Your task to perform on an android device: uninstall "Google Keep" Image 0: 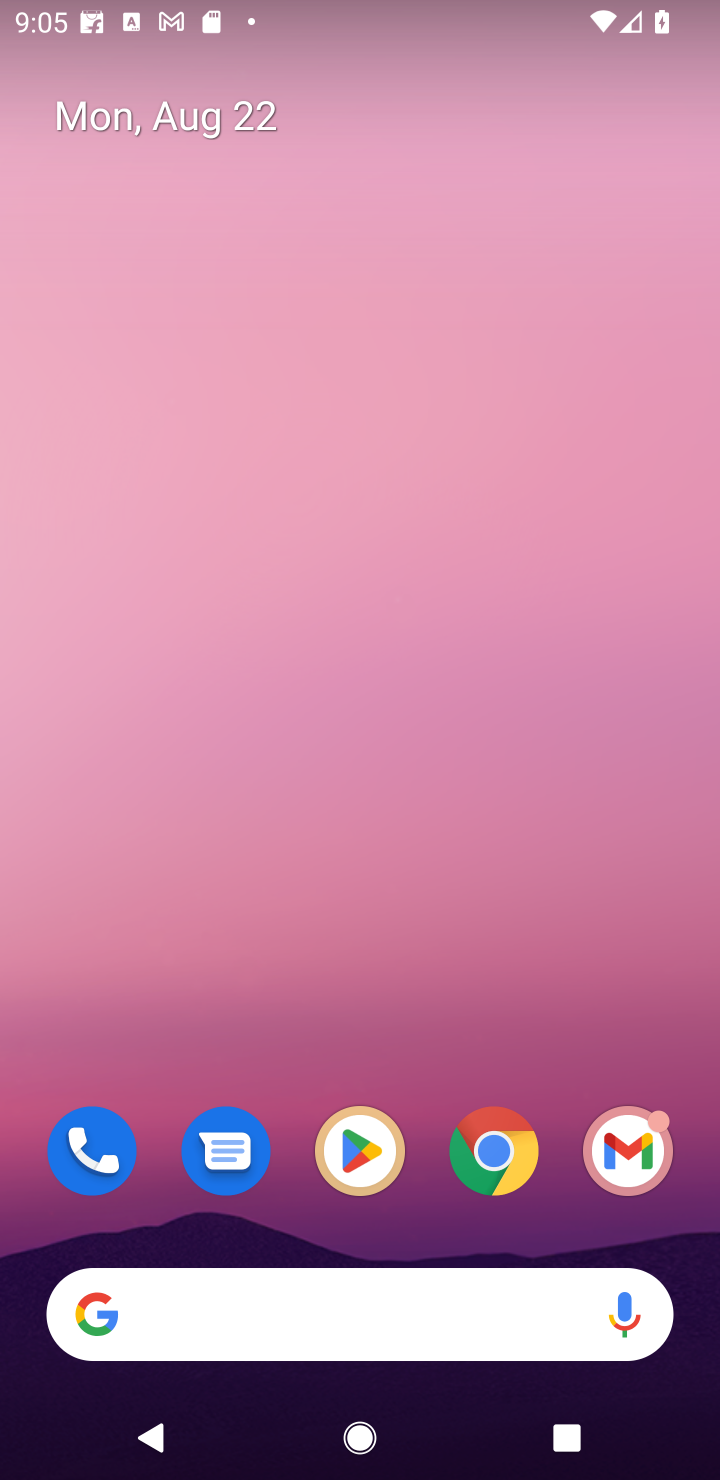
Step 0: click (358, 1148)
Your task to perform on an android device: uninstall "Google Keep" Image 1: 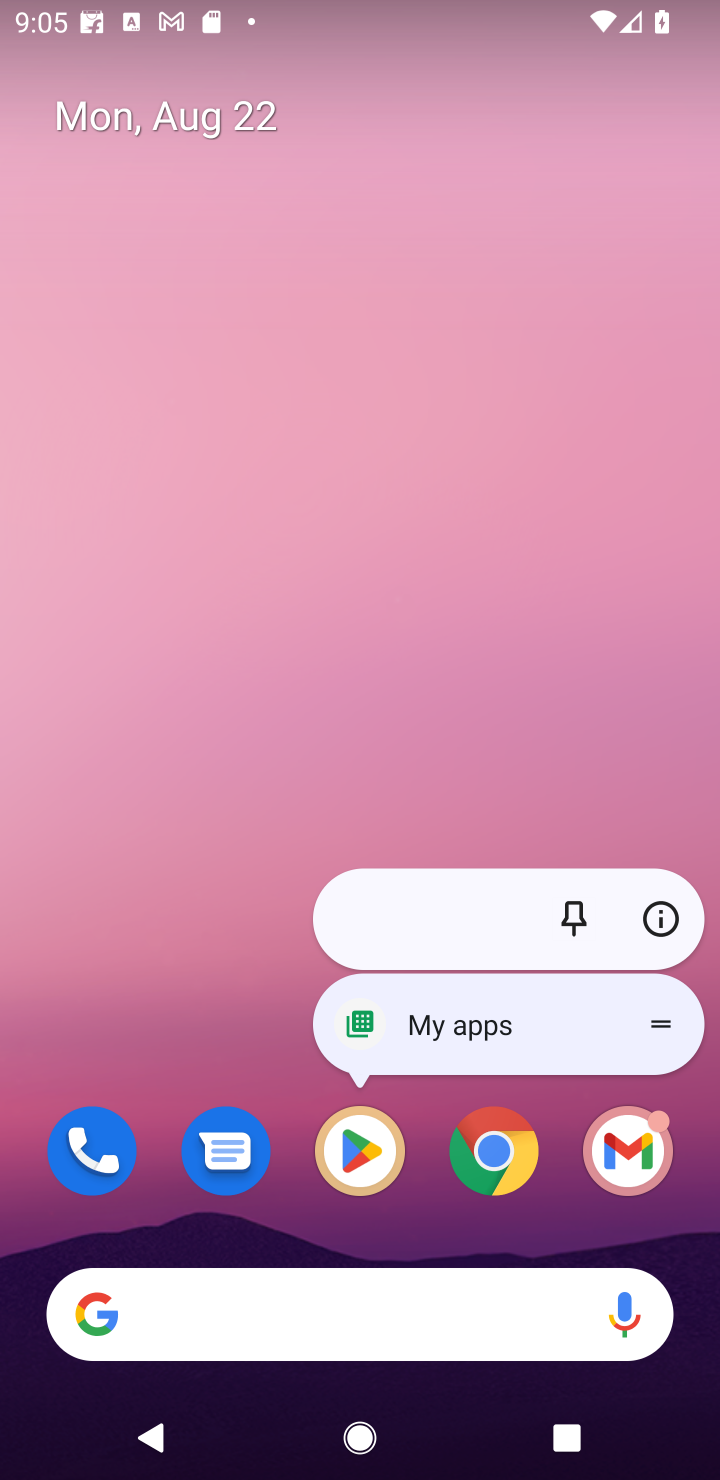
Step 1: click (358, 1148)
Your task to perform on an android device: uninstall "Google Keep" Image 2: 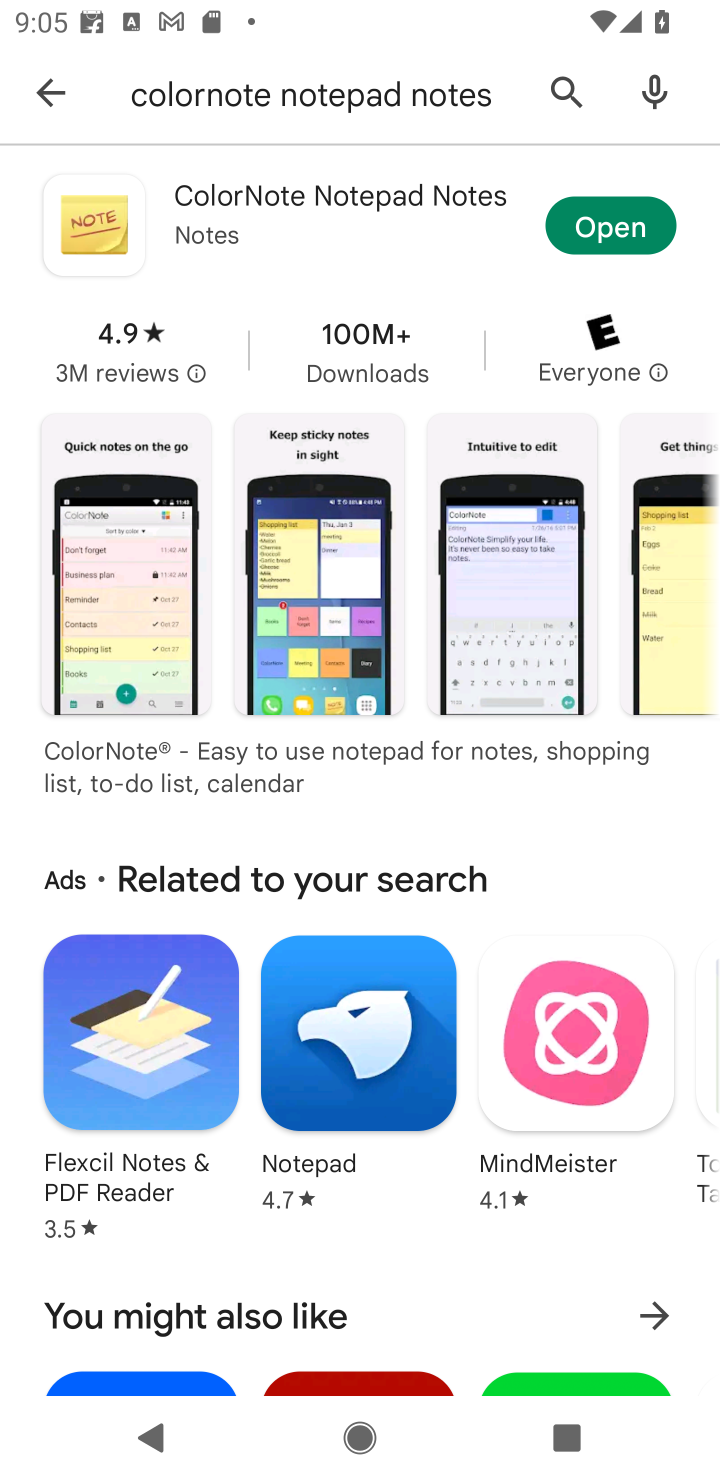
Step 2: click (566, 96)
Your task to perform on an android device: uninstall "Google Keep" Image 3: 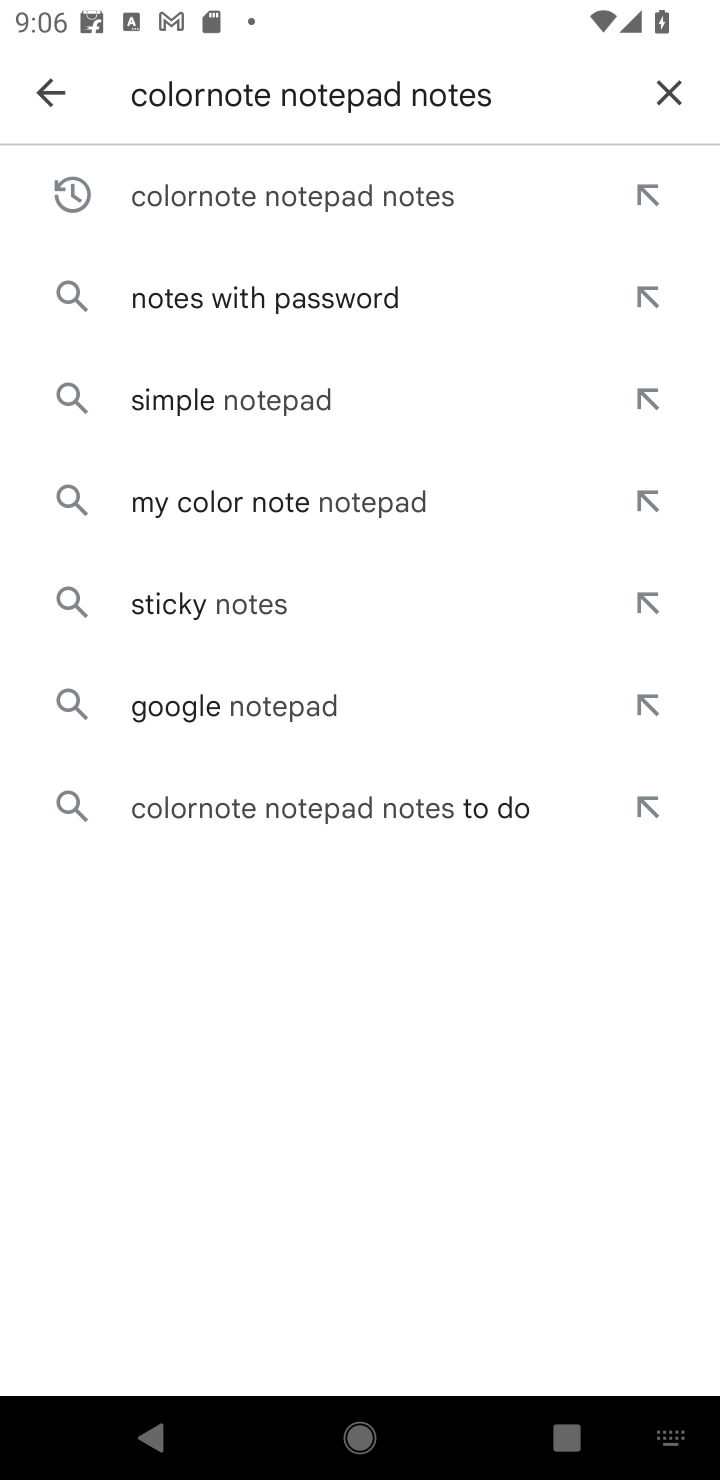
Step 3: click (663, 80)
Your task to perform on an android device: uninstall "Google Keep" Image 4: 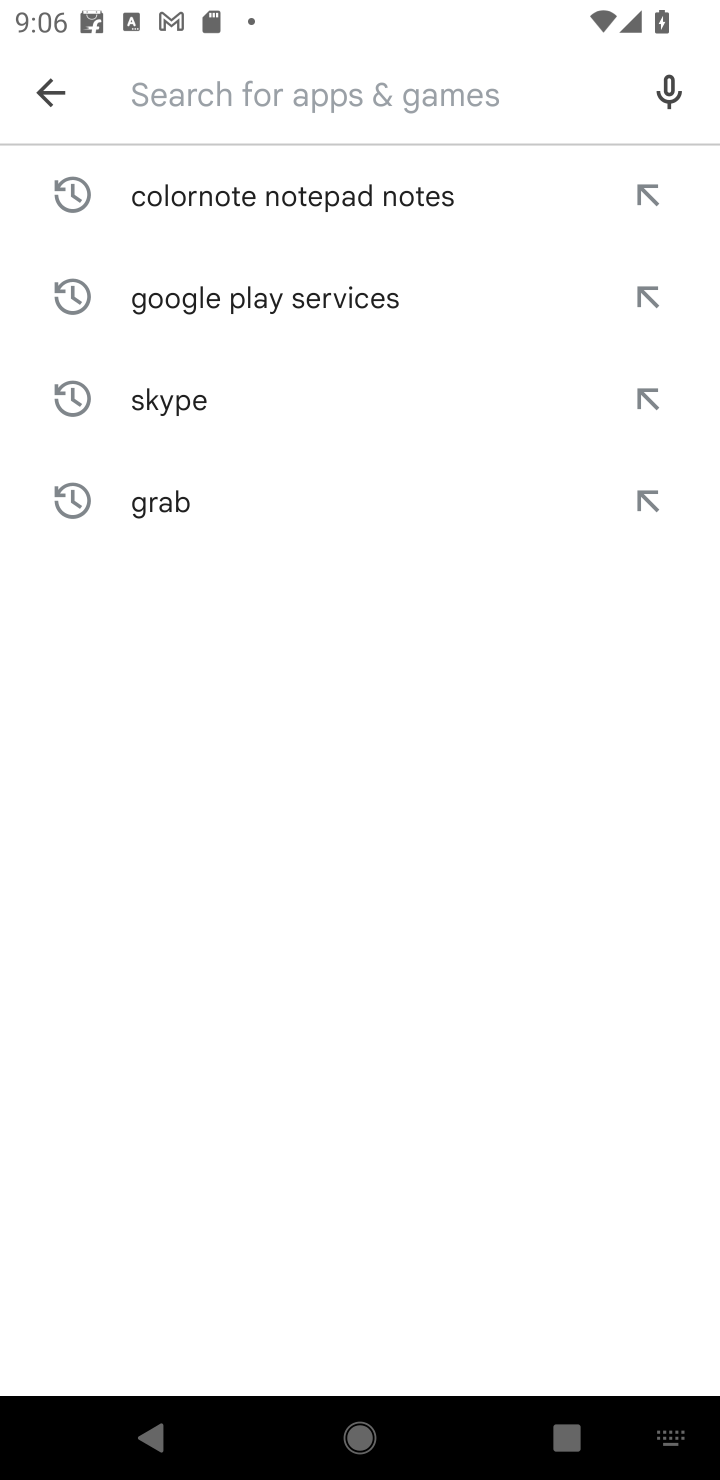
Step 4: type "Google Keep"
Your task to perform on an android device: uninstall "Google Keep" Image 5: 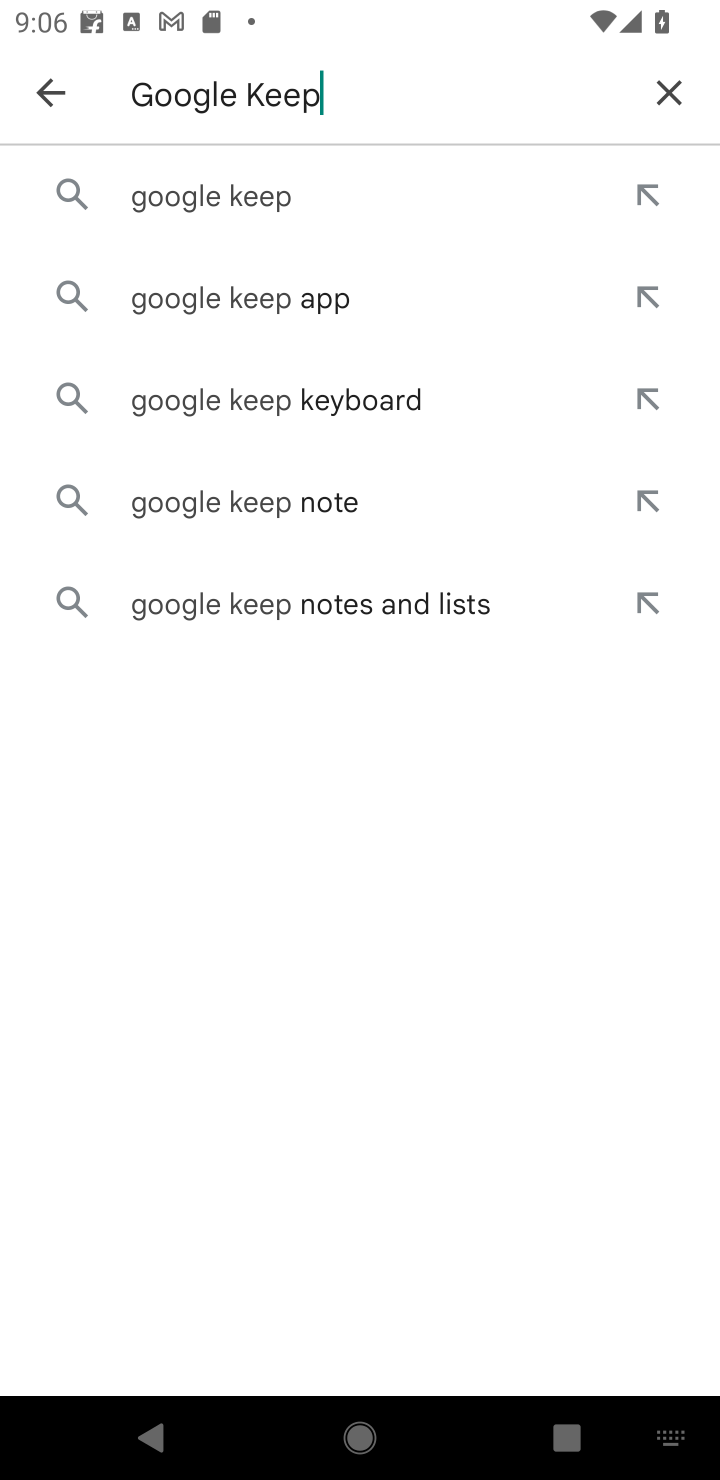
Step 5: click (249, 198)
Your task to perform on an android device: uninstall "Google Keep" Image 6: 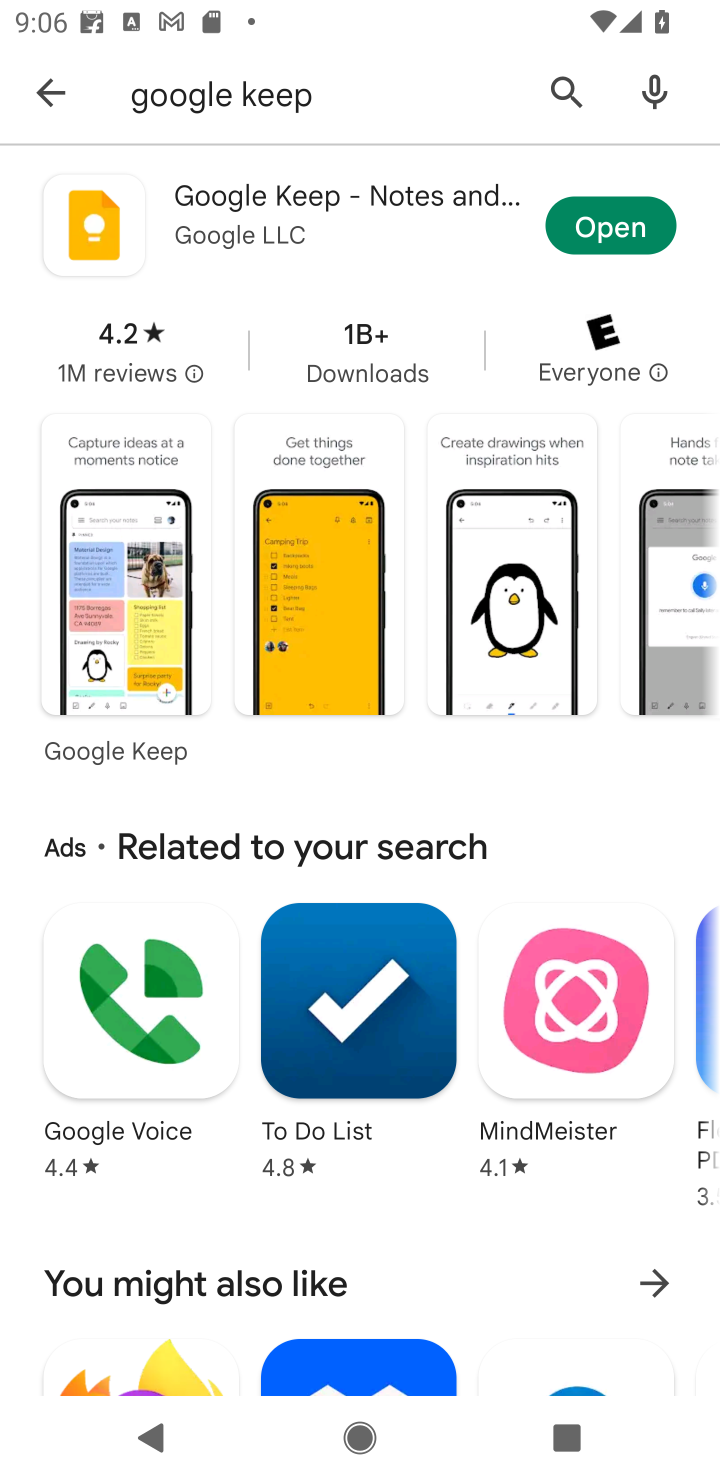
Step 6: click (182, 211)
Your task to perform on an android device: uninstall "Google Keep" Image 7: 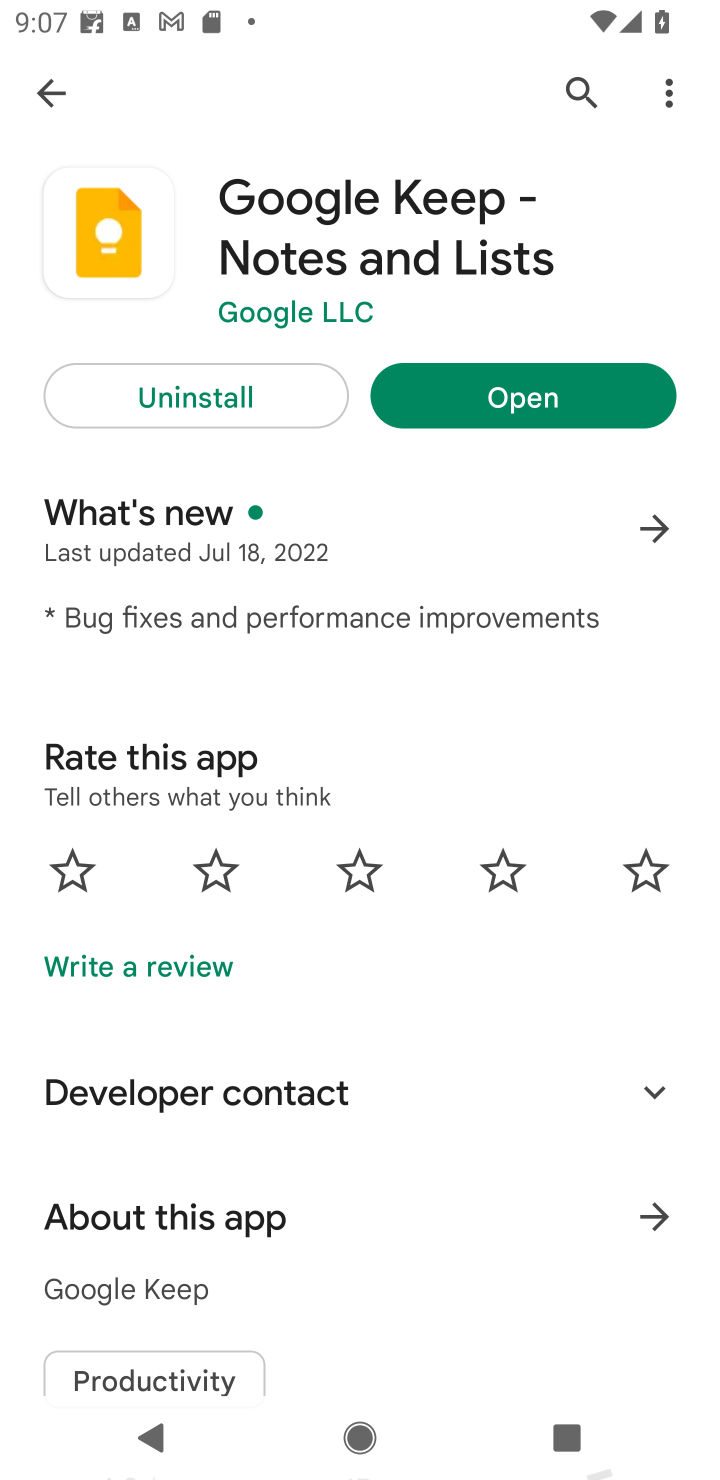
Step 7: click (273, 398)
Your task to perform on an android device: uninstall "Google Keep" Image 8: 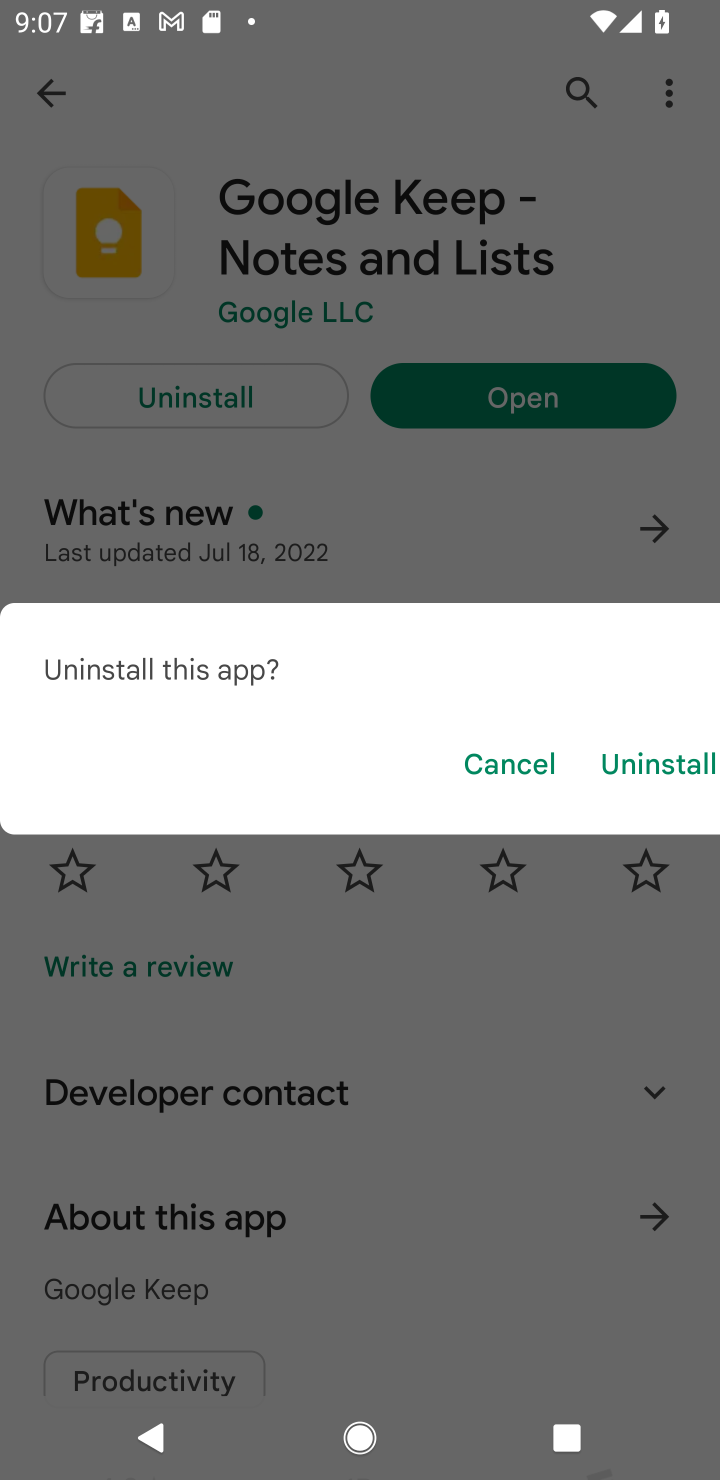
Step 8: click (660, 773)
Your task to perform on an android device: uninstall "Google Keep" Image 9: 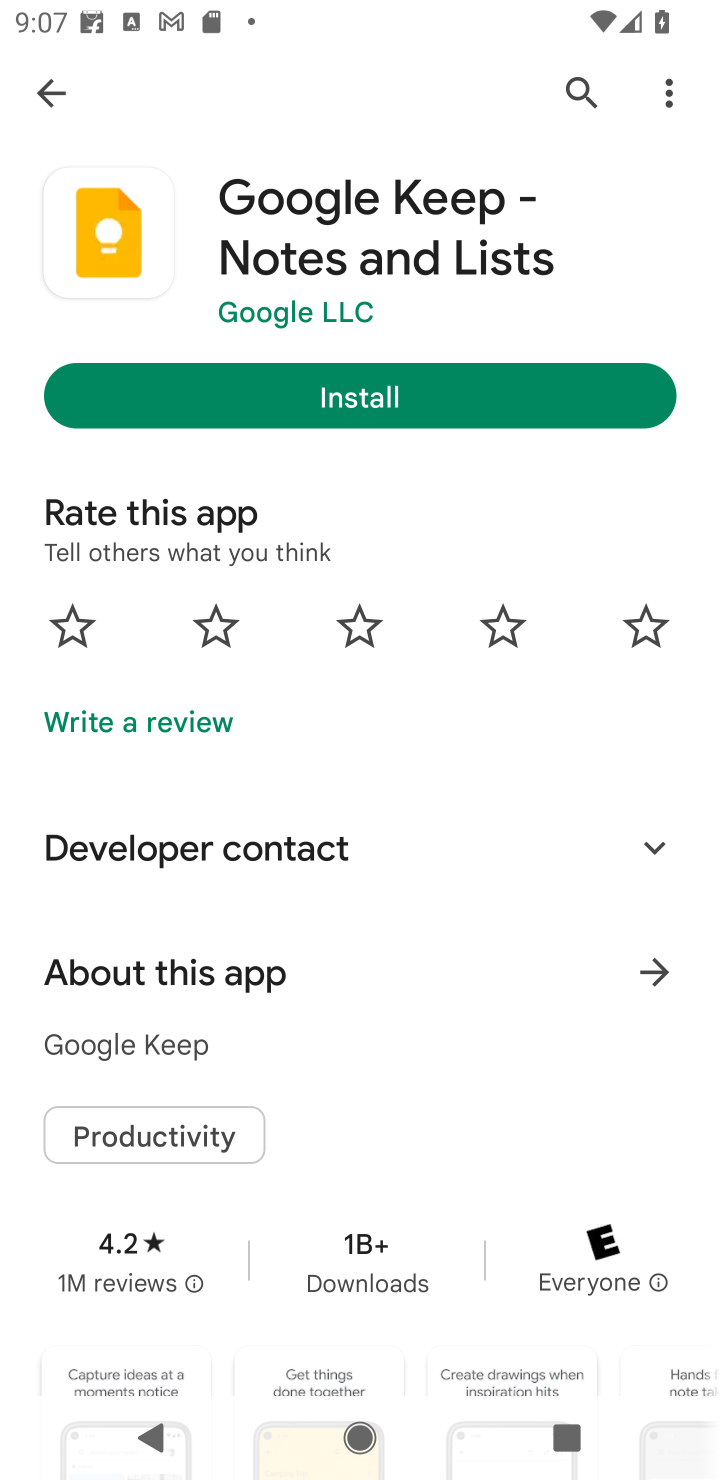
Step 9: task complete